Your task to perform on an android device: toggle show notifications on the lock screen Image 0: 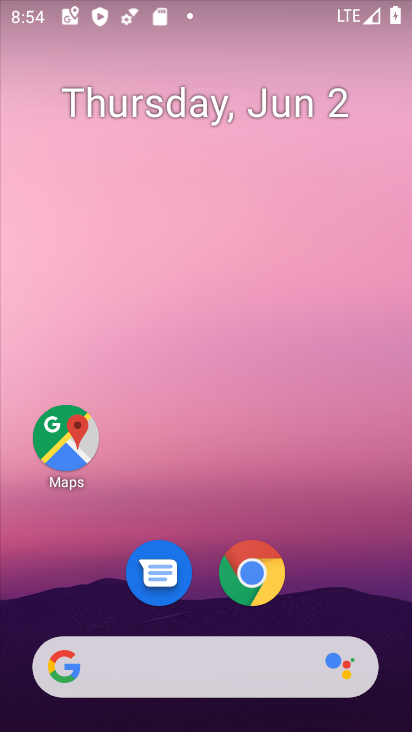
Step 0: press home button
Your task to perform on an android device: toggle show notifications on the lock screen Image 1: 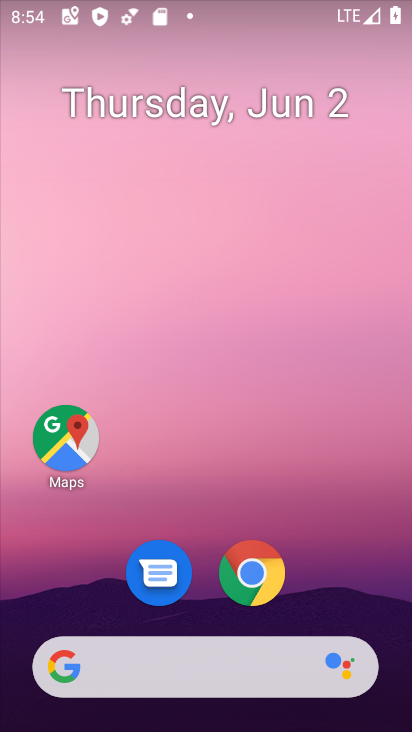
Step 1: drag from (363, 594) to (196, 16)
Your task to perform on an android device: toggle show notifications on the lock screen Image 2: 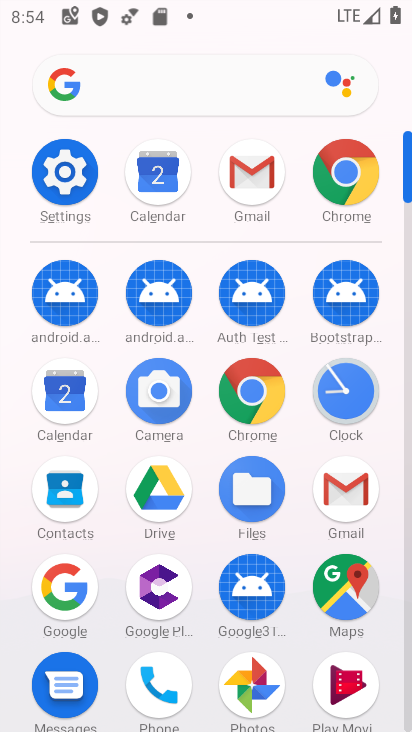
Step 2: click (80, 192)
Your task to perform on an android device: toggle show notifications on the lock screen Image 3: 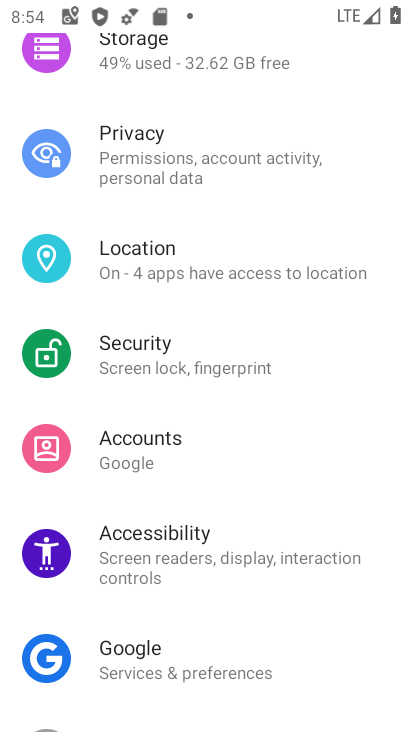
Step 3: drag from (249, 519) to (204, 84)
Your task to perform on an android device: toggle show notifications on the lock screen Image 4: 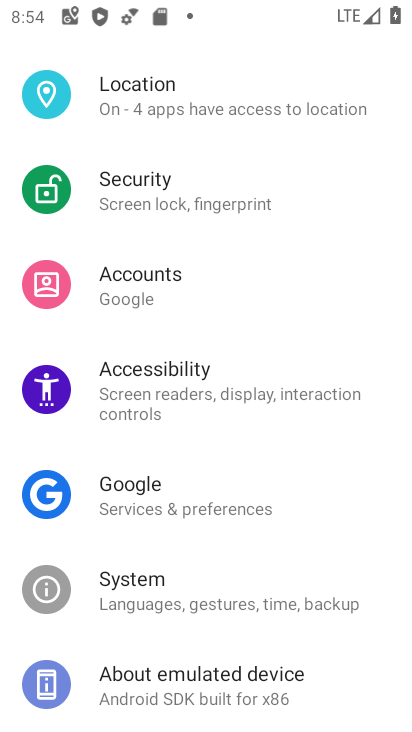
Step 4: drag from (258, 182) to (308, 645)
Your task to perform on an android device: toggle show notifications on the lock screen Image 5: 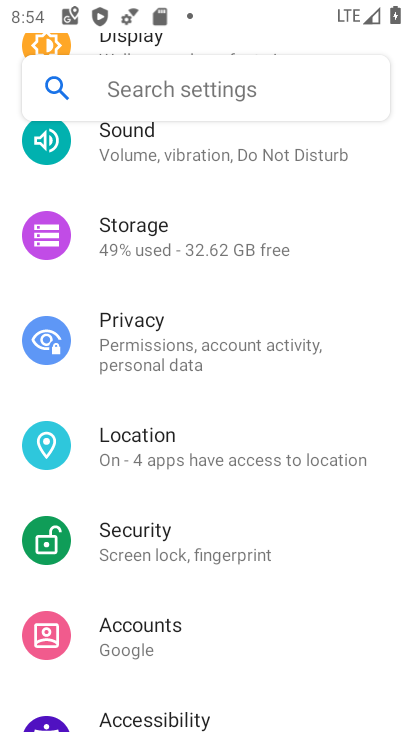
Step 5: drag from (289, 267) to (275, 718)
Your task to perform on an android device: toggle show notifications on the lock screen Image 6: 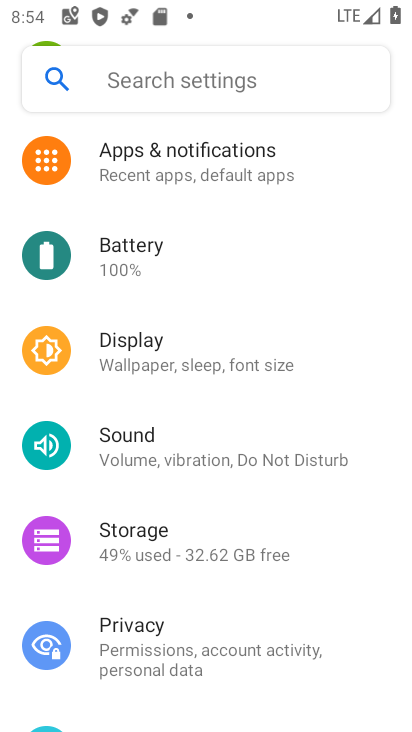
Step 6: click (149, 181)
Your task to perform on an android device: toggle show notifications on the lock screen Image 7: 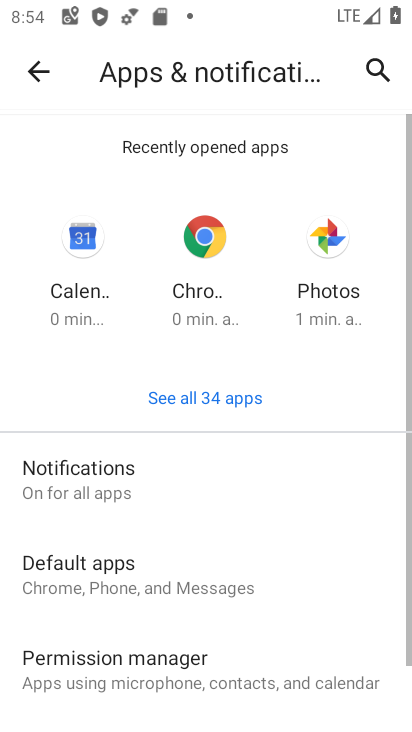
Step 7: click (162, 493)
Your task to perform on an android device: toggle show notifications on the lock screen Image 8: 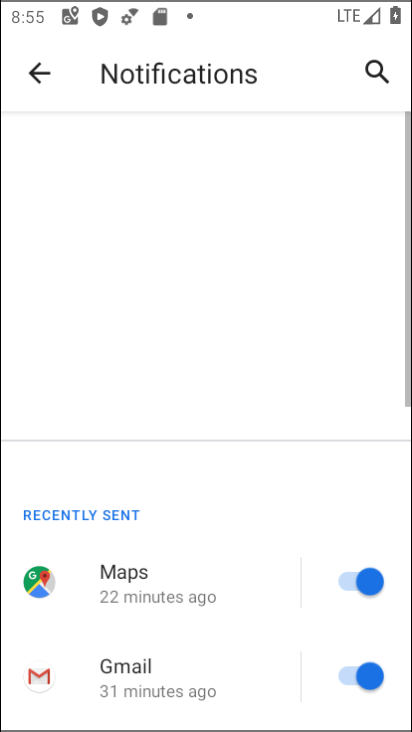
Step 8: drag from (279, 584) to (237, 3)
Your task to perform on an android device: toggle show notifications on the lock screen Image 9: 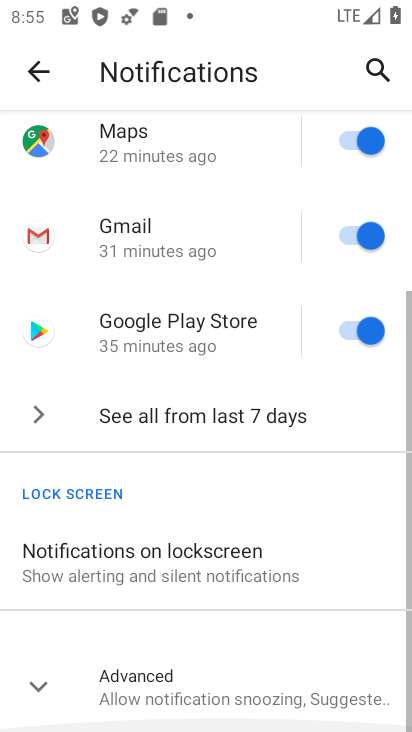
Step 9: drag from (380, 482) to (344, 362)
Your task to perform on an android device: toggle show notifications on the lock screen Image 10: 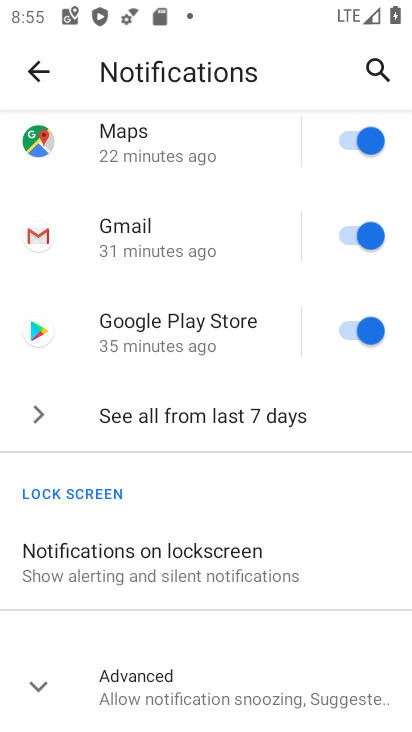
Step 10: click (304, 559)
Your task to perform on an android device: toggle show notifications on the lock screen Image 11: 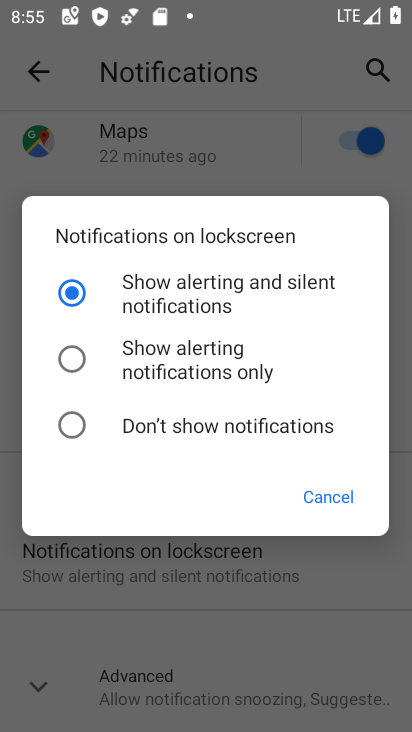
Step 11: click (207, 371)
Your task to perform on an android device: toggle show notifications on the lock screen Image 12: 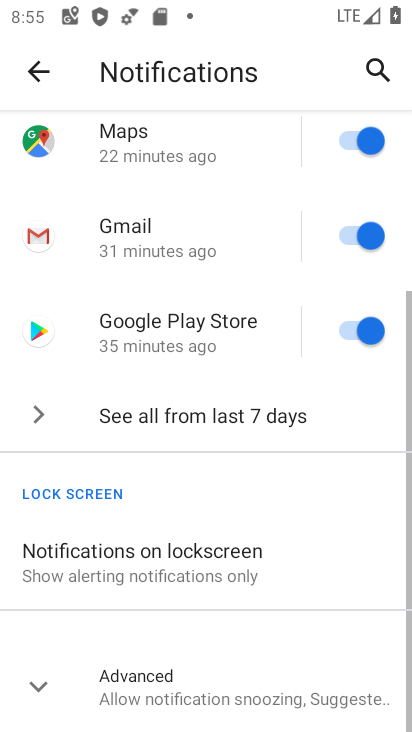
Step 12: task complete